Your task to perform on an android device: Open sound settings Image 0: 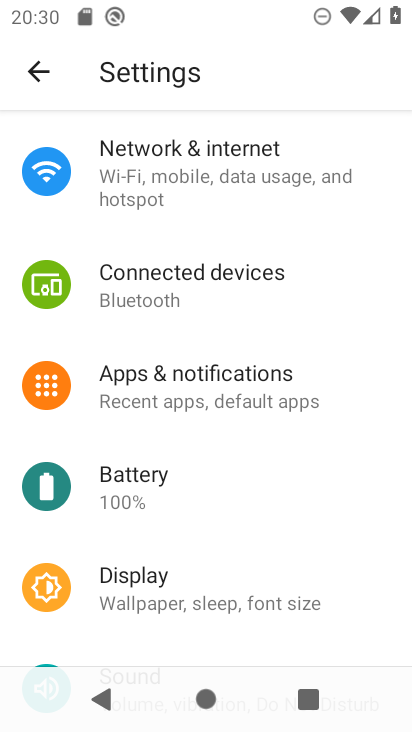
Step 0: drag from (238, 516) to (289, 195)
Your task to perform on an android device: Open sound settings Image 1: 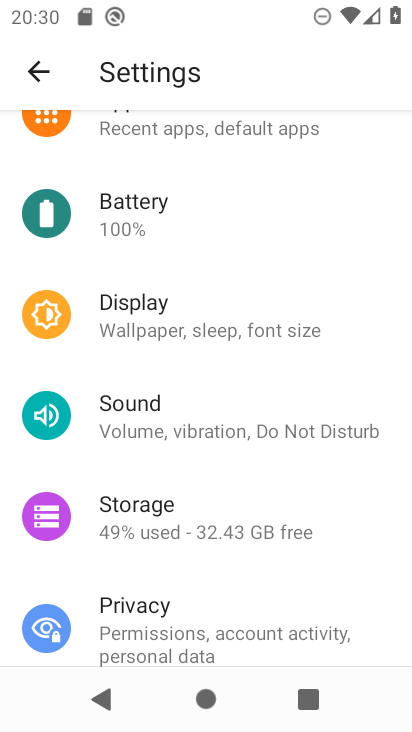
Step 1: click (239, 426)
Your task to perform on an android device: Open sound settings Image 2: 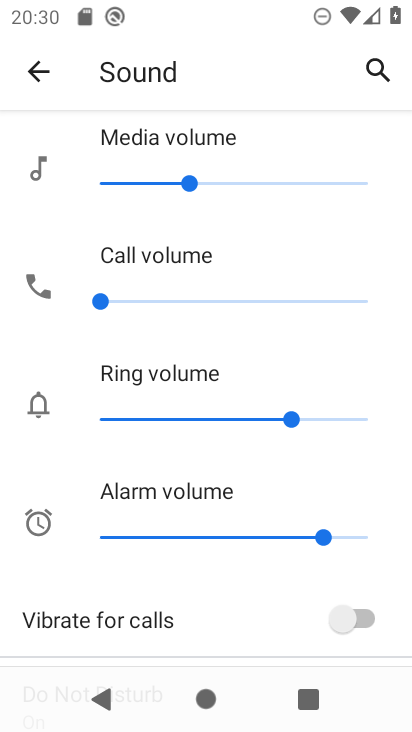
Step 2: task complete